Your task to perform on an android device: Open Google Chrome and open the bookmarks view Image 0: 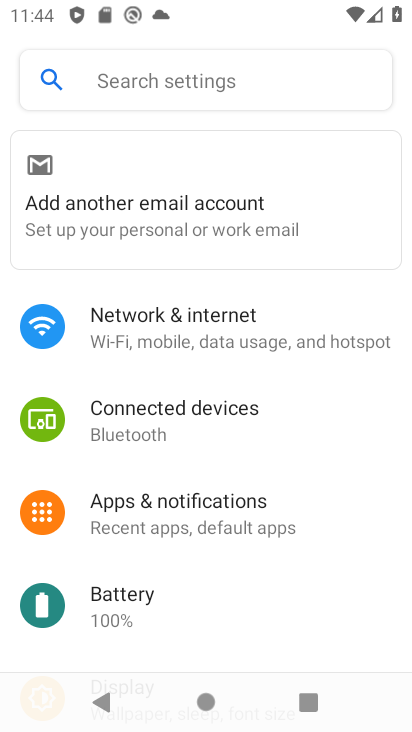
Step 0: press home button
Your task to perform on an android device: Open Google Chrome and open the bookmarks view Image 1: 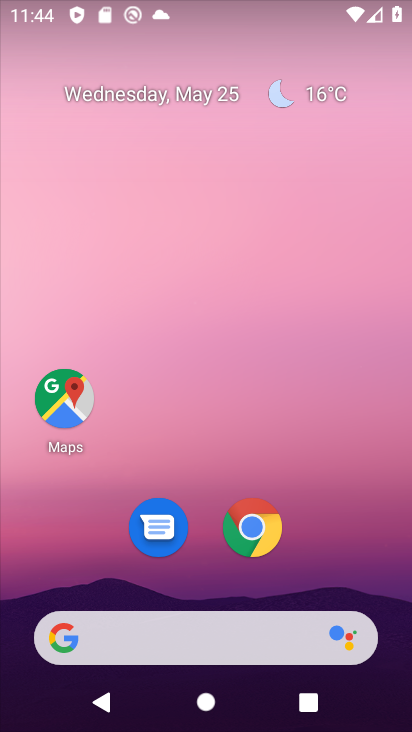
Step 1: click (240, 526)
Your task to perform on an android device: Open Google Chrome and open the bookmarks view Image 2: 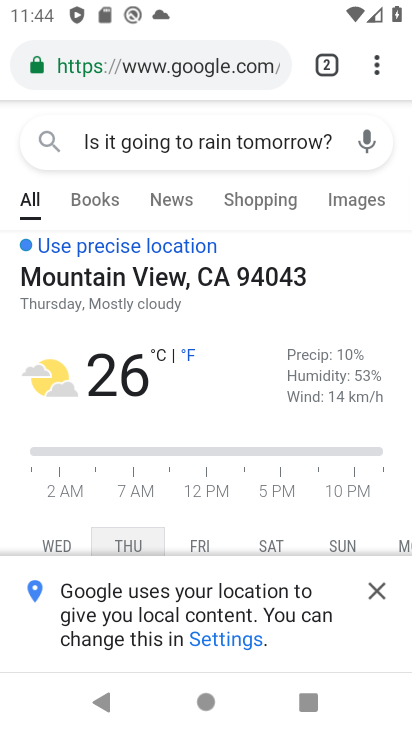
Step 2: task complete